Your task to perform on an android device: Set the phone to "Do not disturb". Image 0: 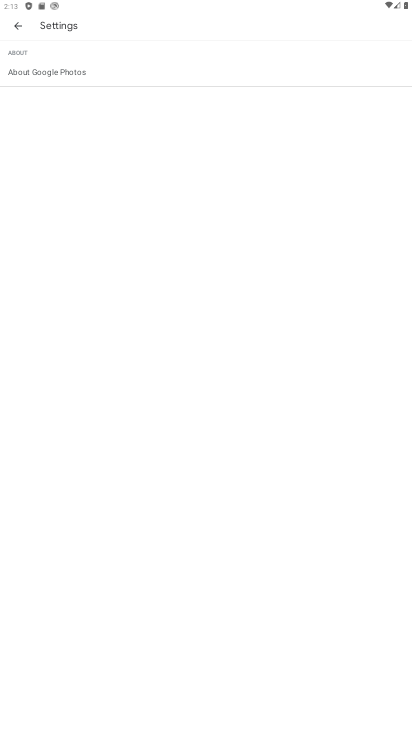
Step 0: press home button
Your task to perform on an android device: Set the phone to "Do not disturb". Image 1: 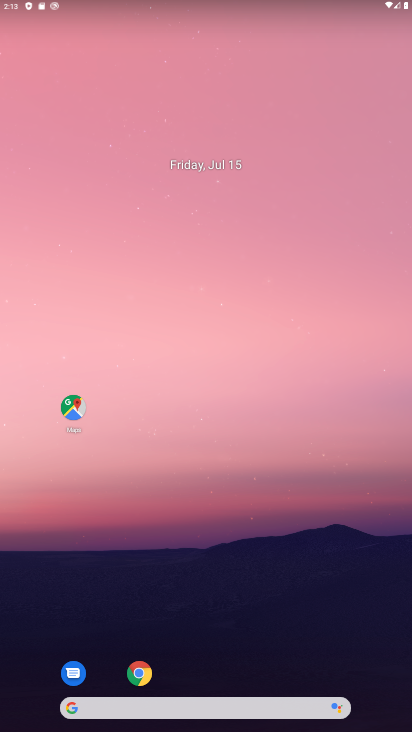
Step 1: drag from (179, 692) to (207, 176)
Your task to perform on an android device: Set the phone to "Do not disturb". Image 2: 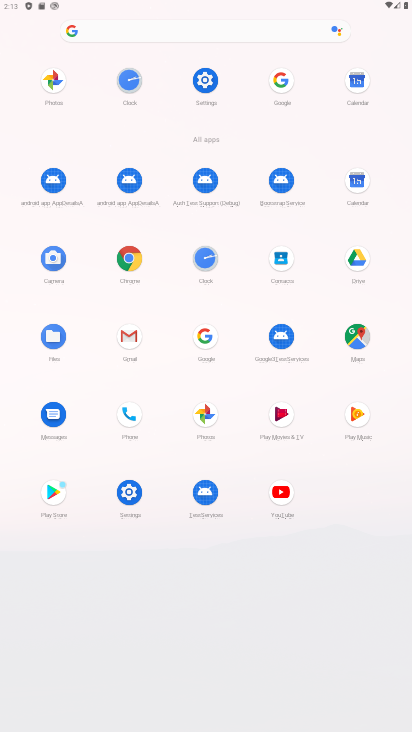
Step 2: click (204, 79)
Your task to perform on an android device: Set the phone to "Do not disturb". Image 3: 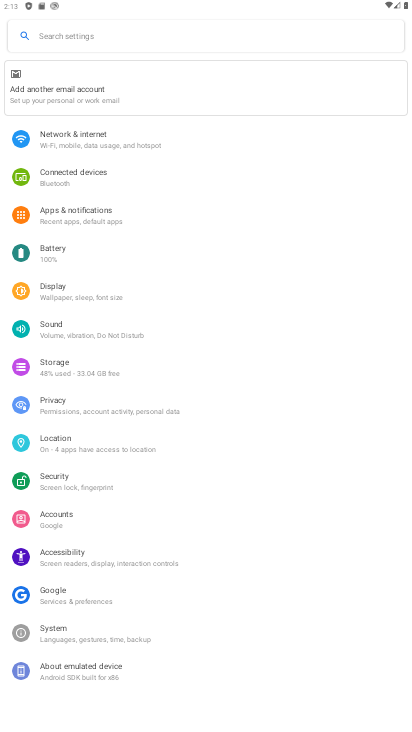
Step 3: click (70, 340)
Your task to perform on an android device: Set the phone to "Do not disturb". Image 4: 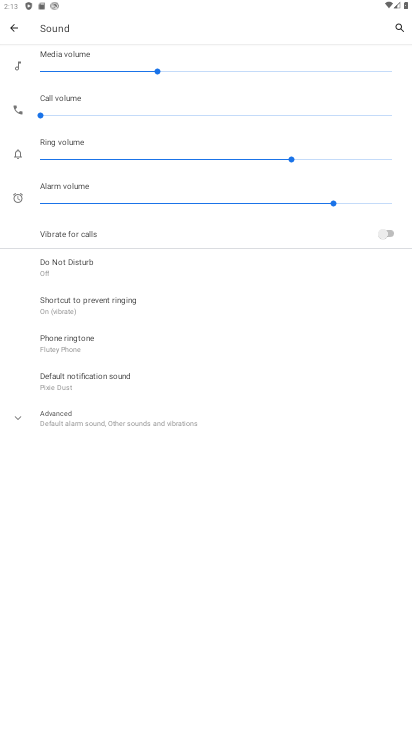
Step 4: click (60, 272)
Your task to perform on an android device: Set the phone to "Do not disturb". Image 5: 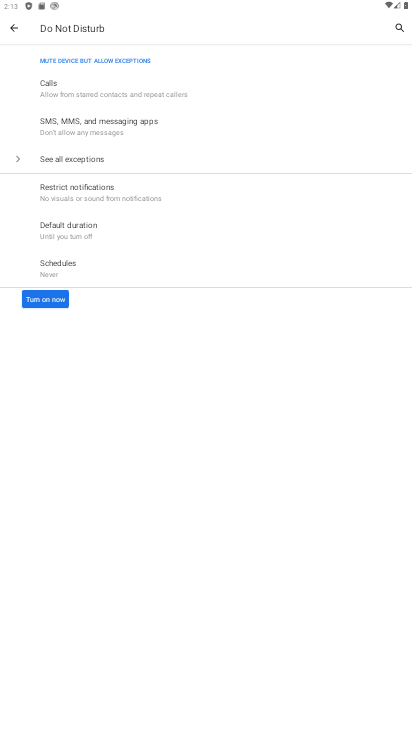
Step 5: click (46, 300)
Your task to perform on an android device: Set the phone to "Do not disturb". Image 6: 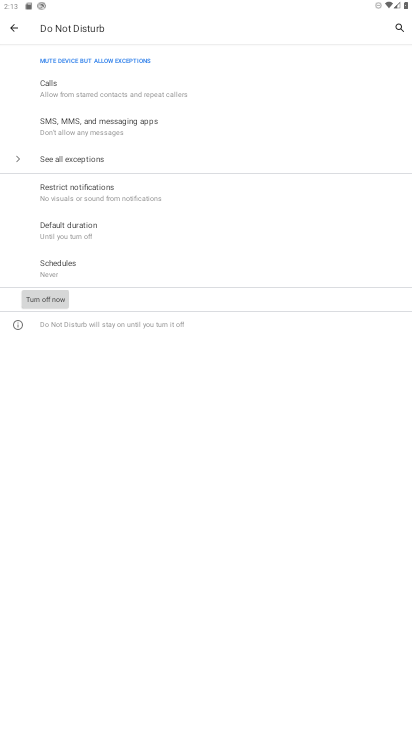
Step 6: task complete